Your task to perform on an android device: What is the recent news? Image 0: 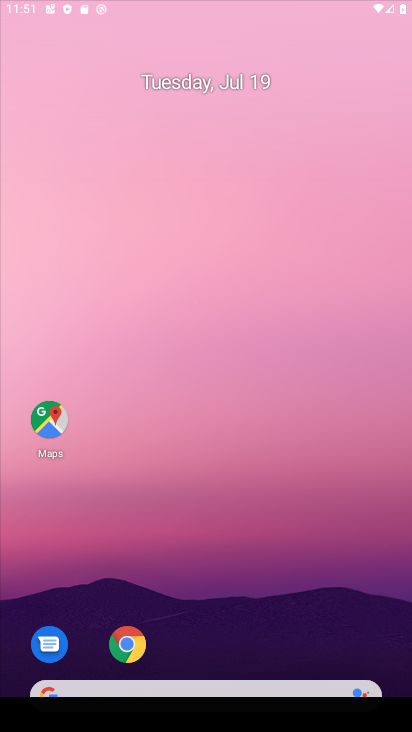
Step 0: press home button
Your task to perform on an android device: What is the recent news? Image 1: 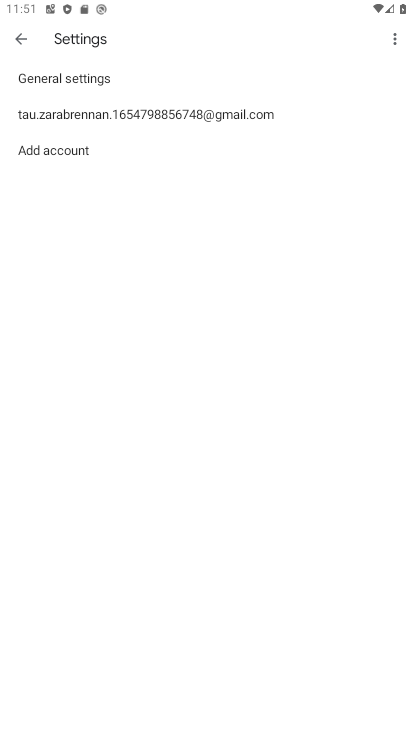
Step 1: drag from (291, 402) to (265, 69)
Your task to perform on an android device: What is the recent news? Image 2: 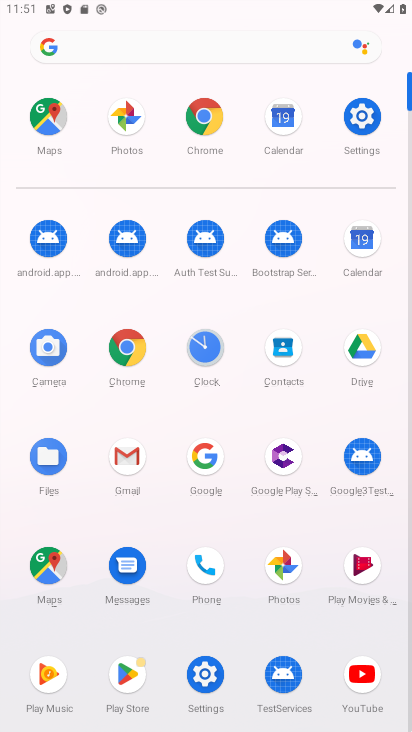
Step 2: click (216, 125)
Your task to perform on an android device: What is the recent news? Image 3: 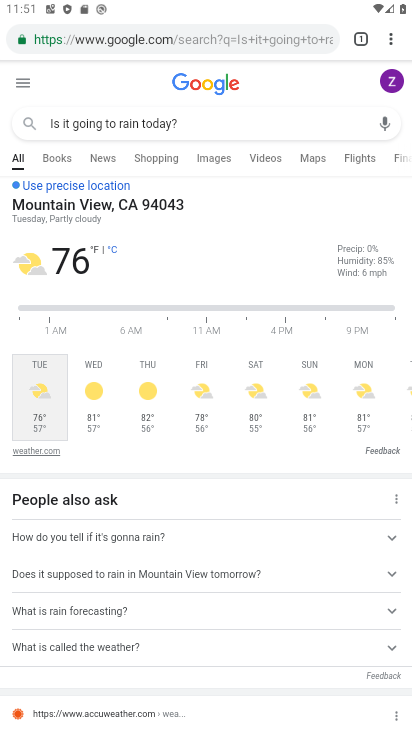
Step 3: click (215, 35)
Your task to perform on an android device: What is the recent news? Image 4: 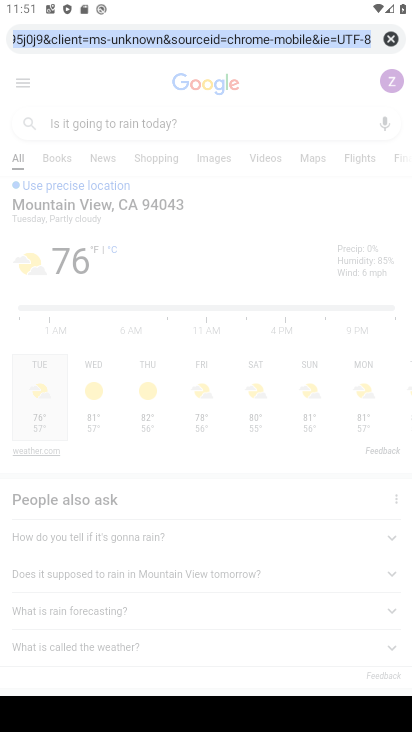
Step 4: type "What is the recent news?"
Your task to perform on an android device: What is the recent news? Image 5: 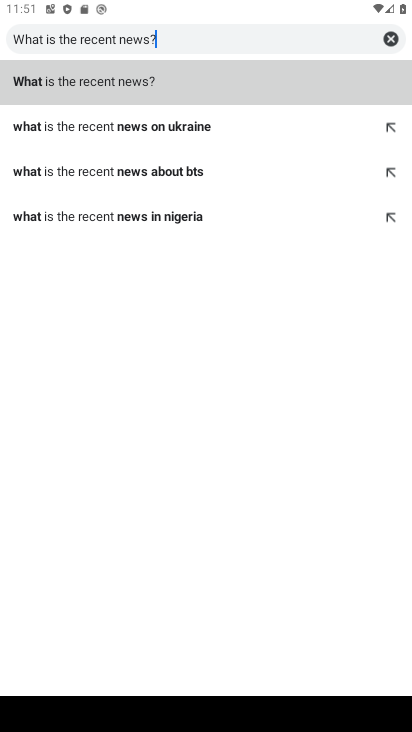
Step 5: type ""
Your task to perform on an android device: What is the recent news? Image 6: 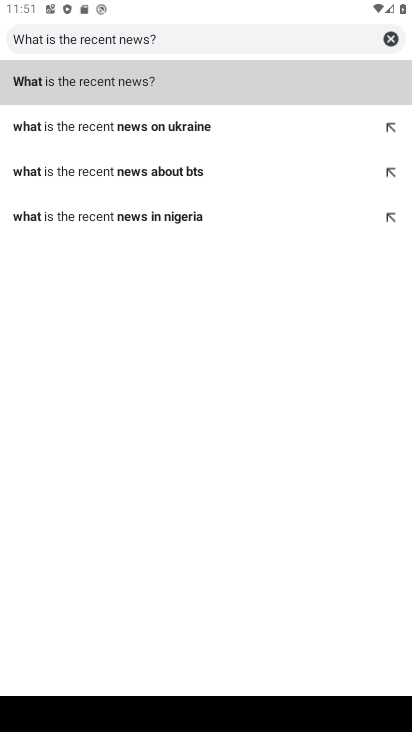
Step 6: click (167, 85)
Your task to perform on an android device: What is the recent news? Image 7: 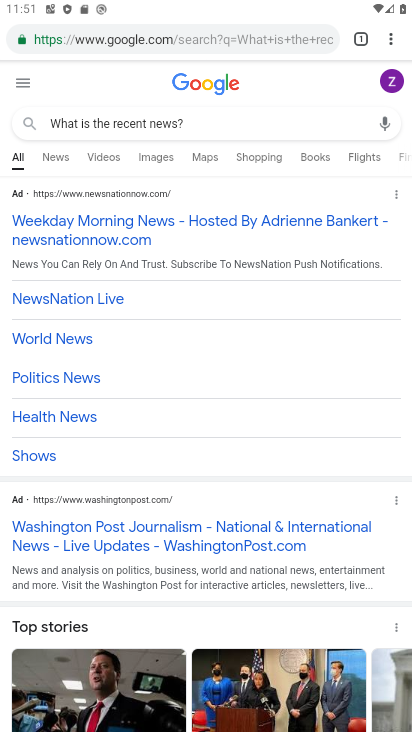
Step 7: task complete